Your task to perform on an android device: Find coffee shops on Maps Image 0: 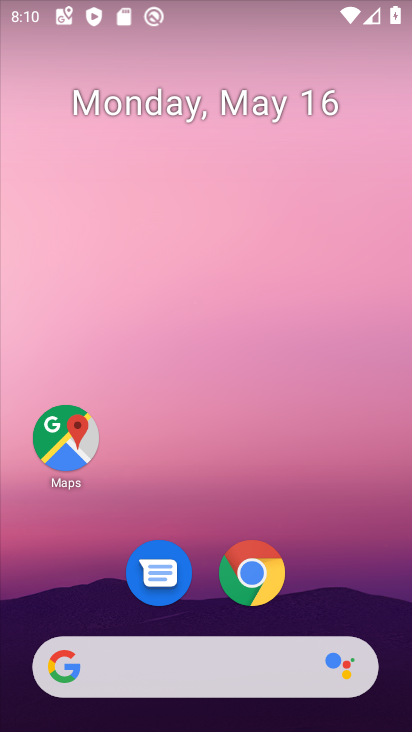
Step 0: drag from (352, 498) to (305, 62)
Your task to perform on an android device: Find coffee shops on Maps Image 1: 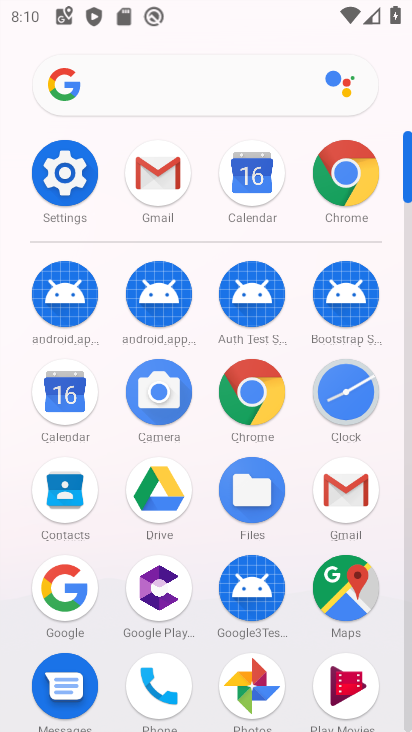
Step 1: click (350, 589)
Your task to perform on an android device: Find coffee shops on Maps Image 2: 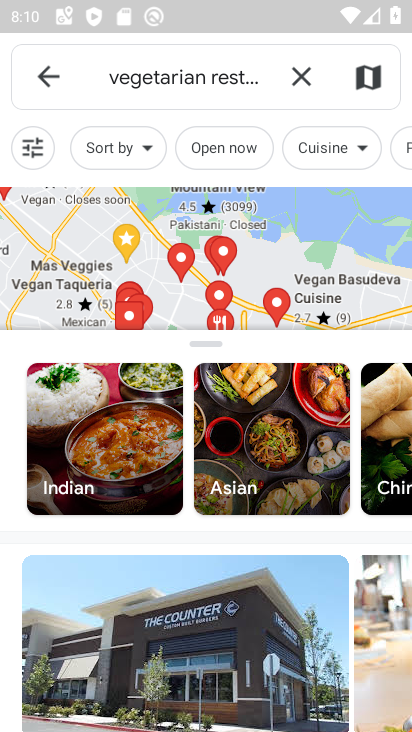
Step 2: click (315, 85)
Your task to perform on an android device: Find coffee shops on Maps Image 3: 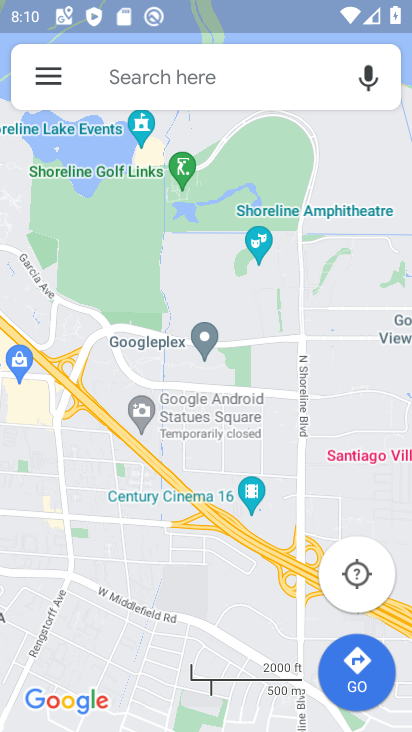
Step 3: click (179, 81)
Your task to perform on an android device: Find coffee shops on Maps Image 4: 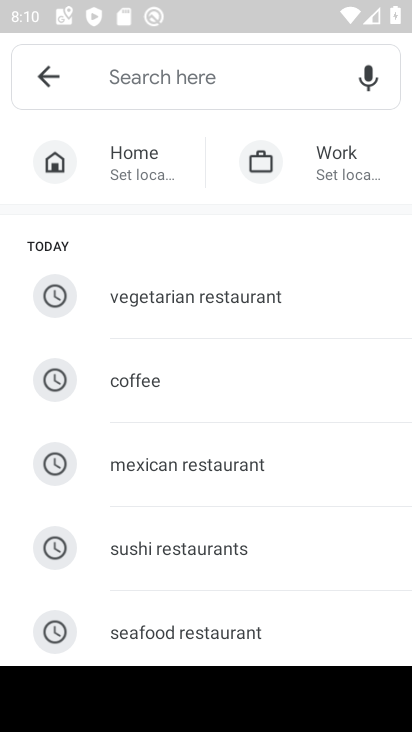
Step 4: click (144, 389)
Your task to perform on an android device: Find coffee shops on Maps Image 5: 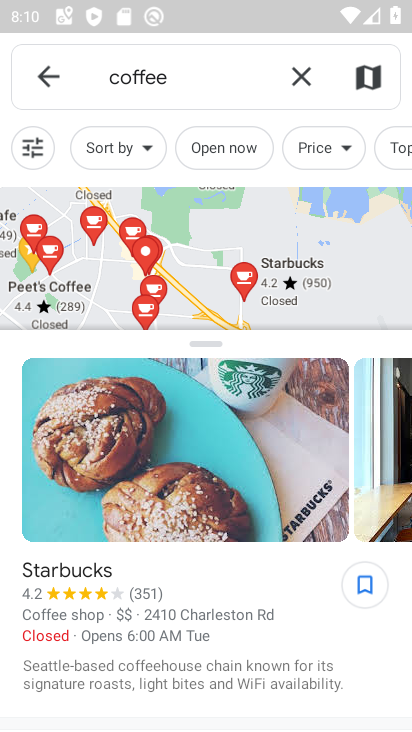
Step 5: task complete